Your task to perform on an android device: Install the Lyft app Image 0: 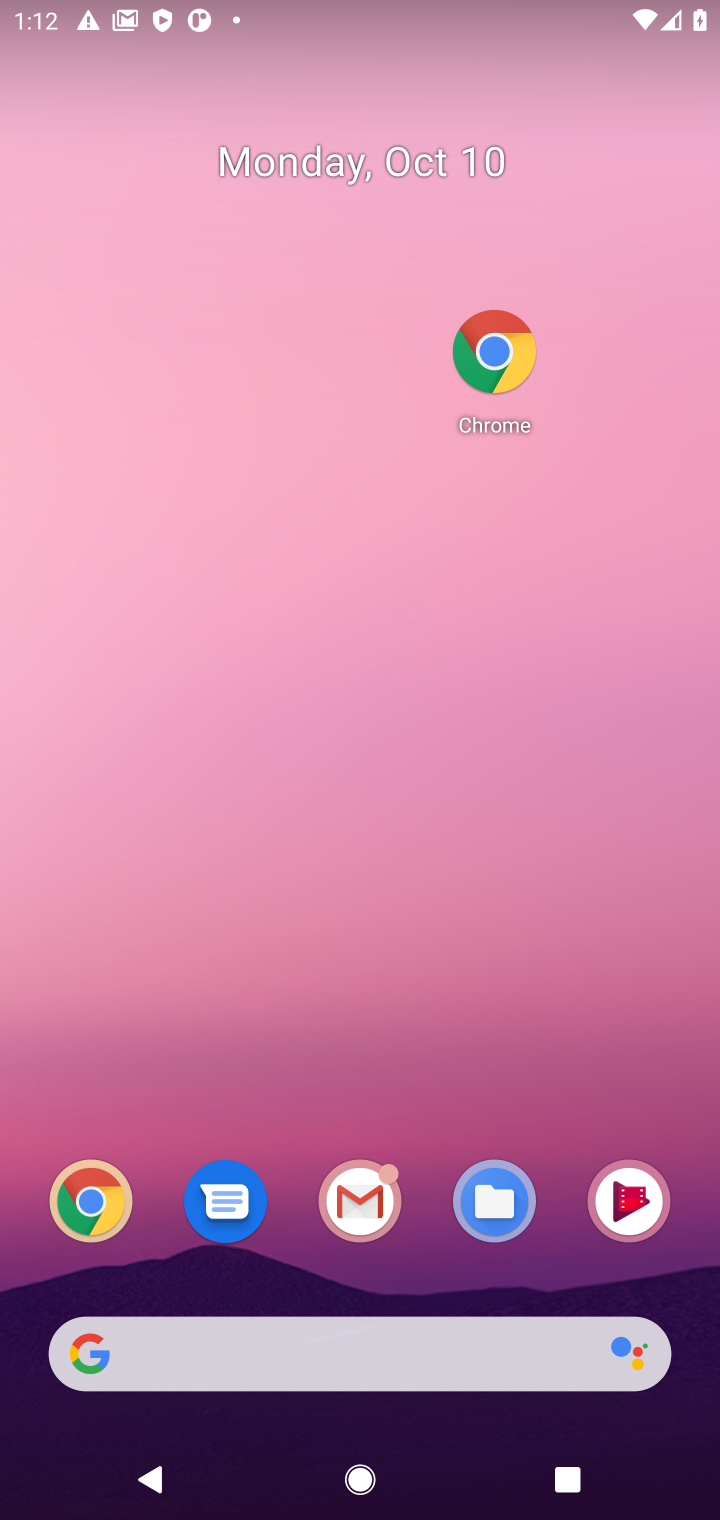
Step 0: drag from (424, 1022) to (433, 185)
Your task to perform on an android device: Install the Lyft app Image 1: 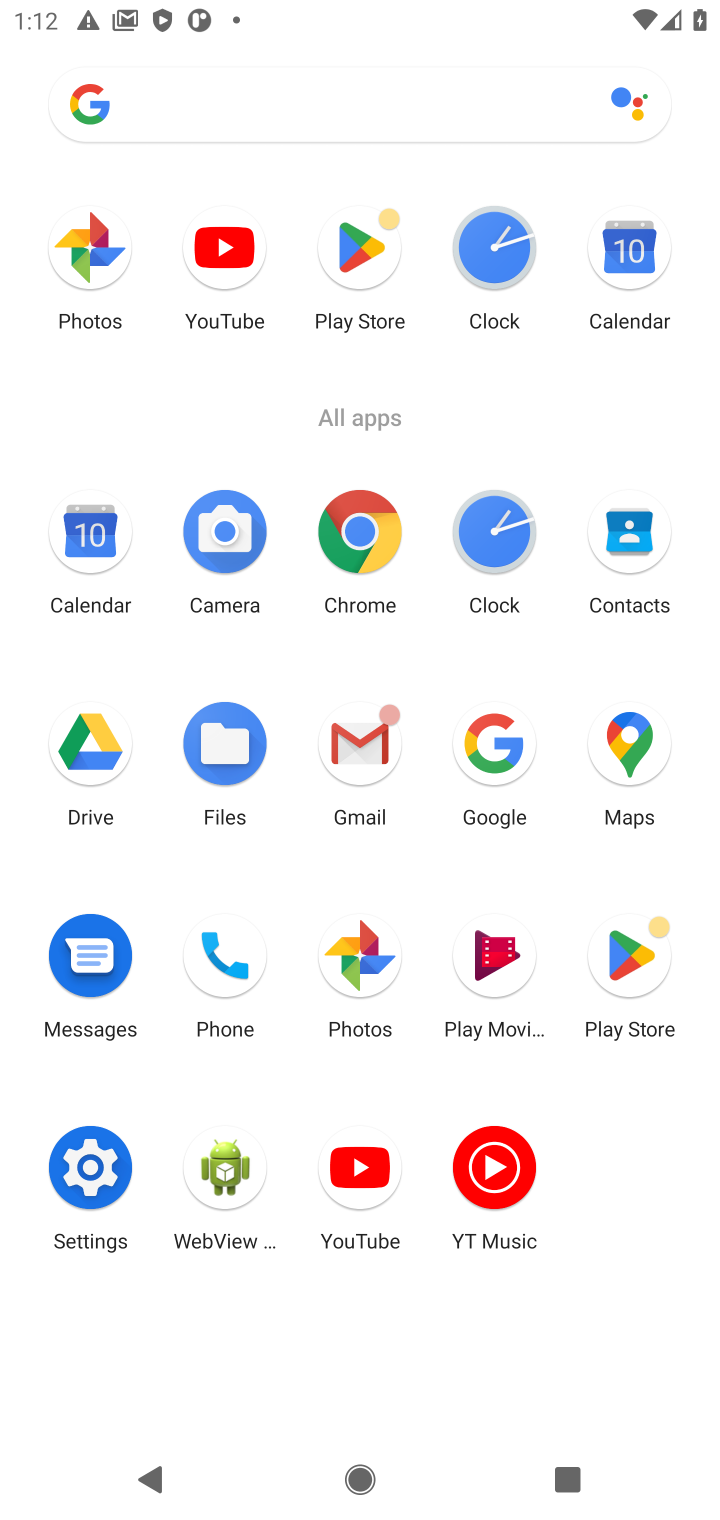
Step 1: click (360, 257)
Your task to perform on an android device: Install the Lyft app Image 2: 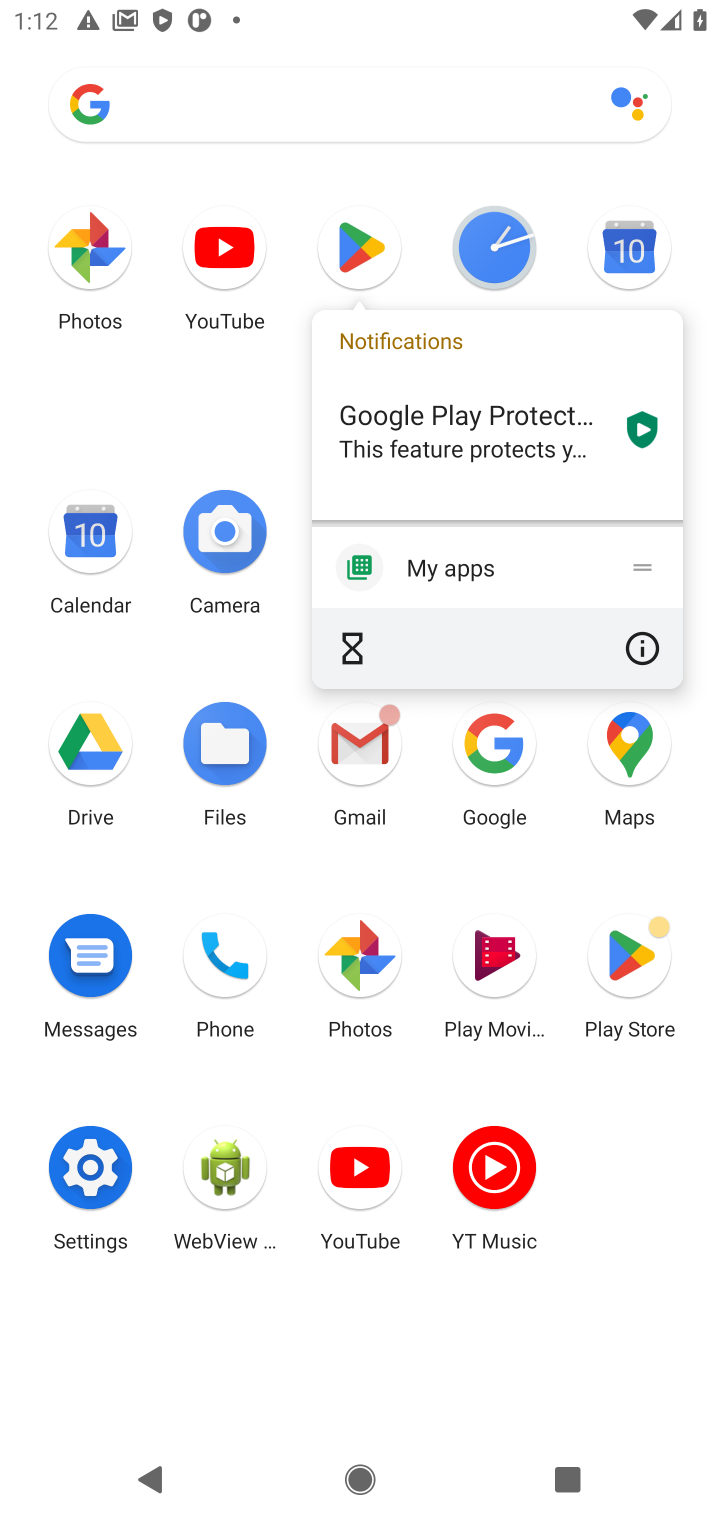
Step 2: click (360, 257)
Your task to perform on an android device: Install the Lyft app Image 3: 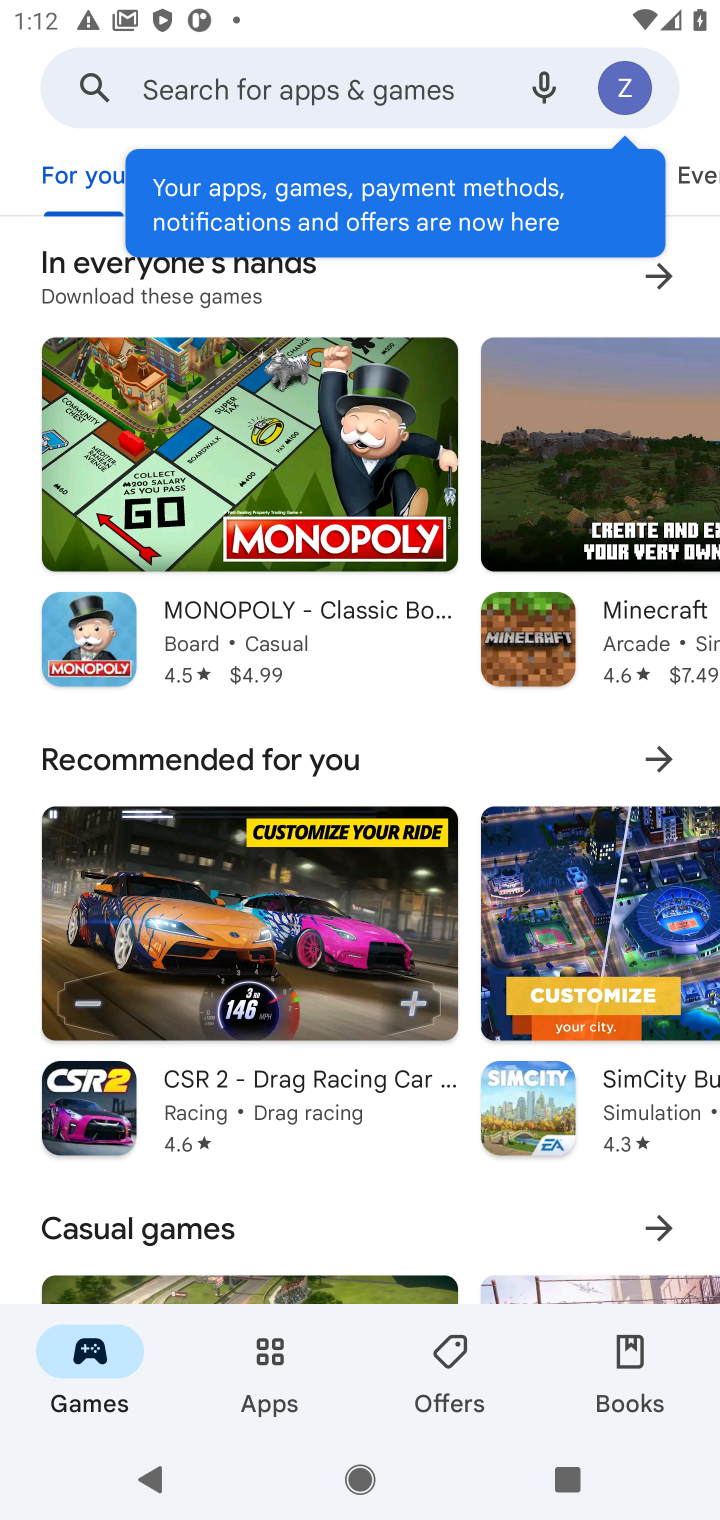
Step 3: click (188, 88)
Your task to perform on an android device: Install the Lyft app Image 4: 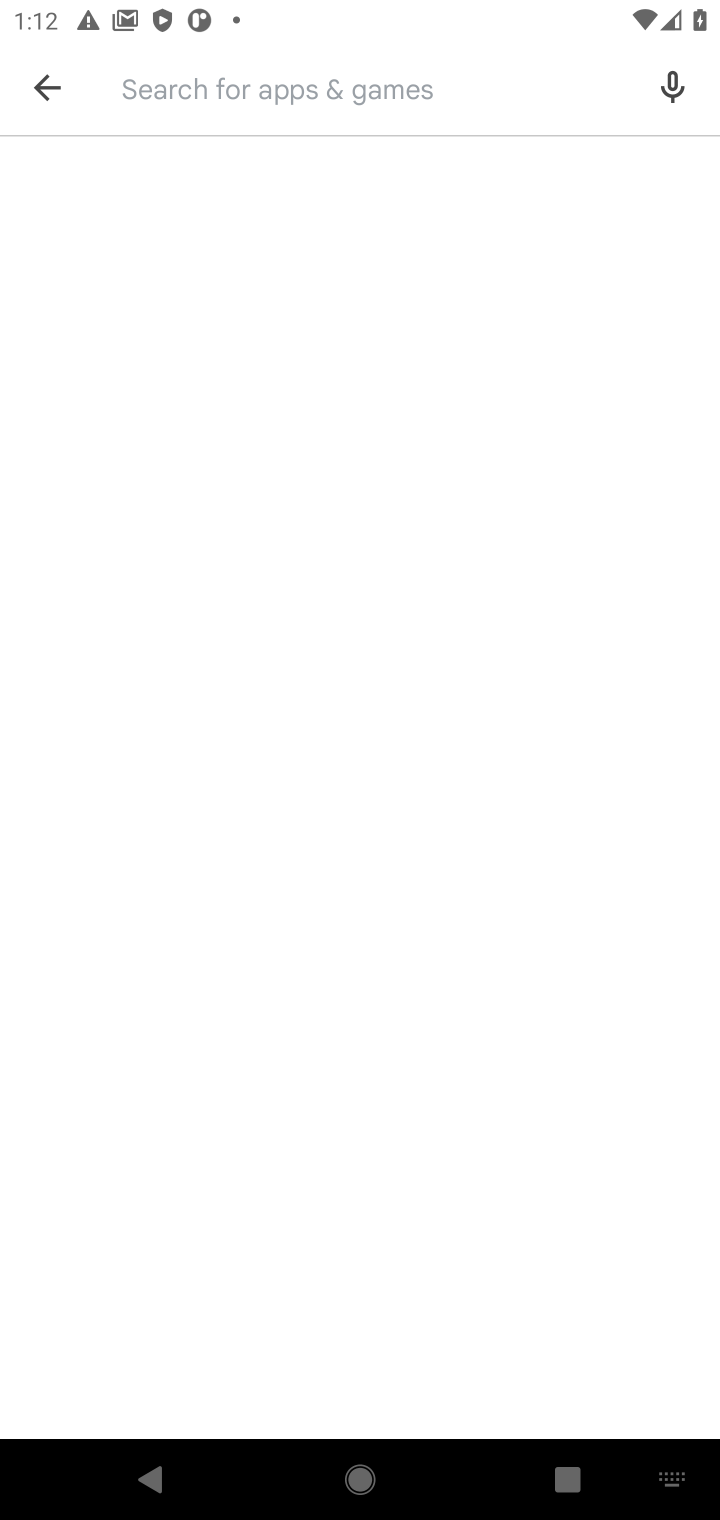
Step 4: type "lyft app"
Your task to perform on an android device: Install the Lyft app Image 5: 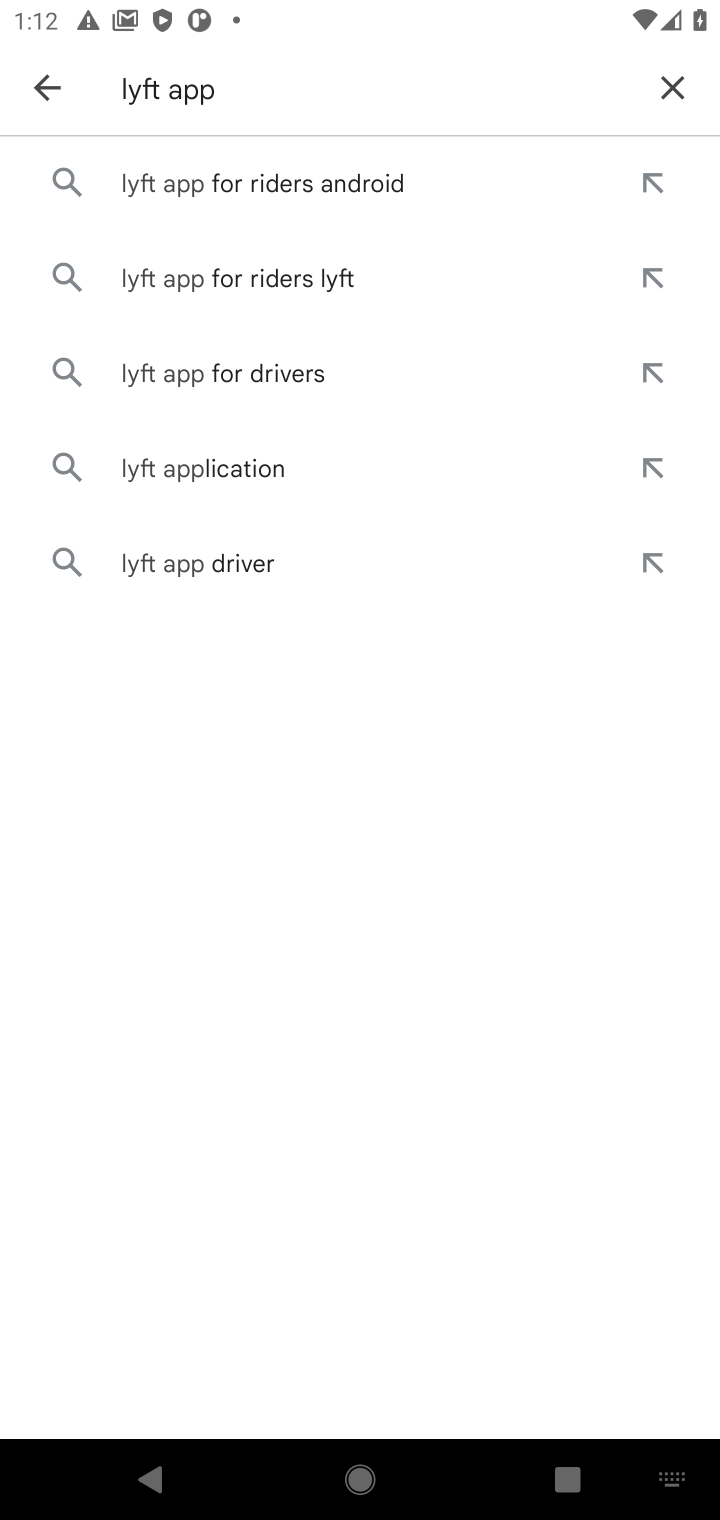
Step 5: click (166, 478)
Your task to perform on an android device: Install the Lyft app Image 6: 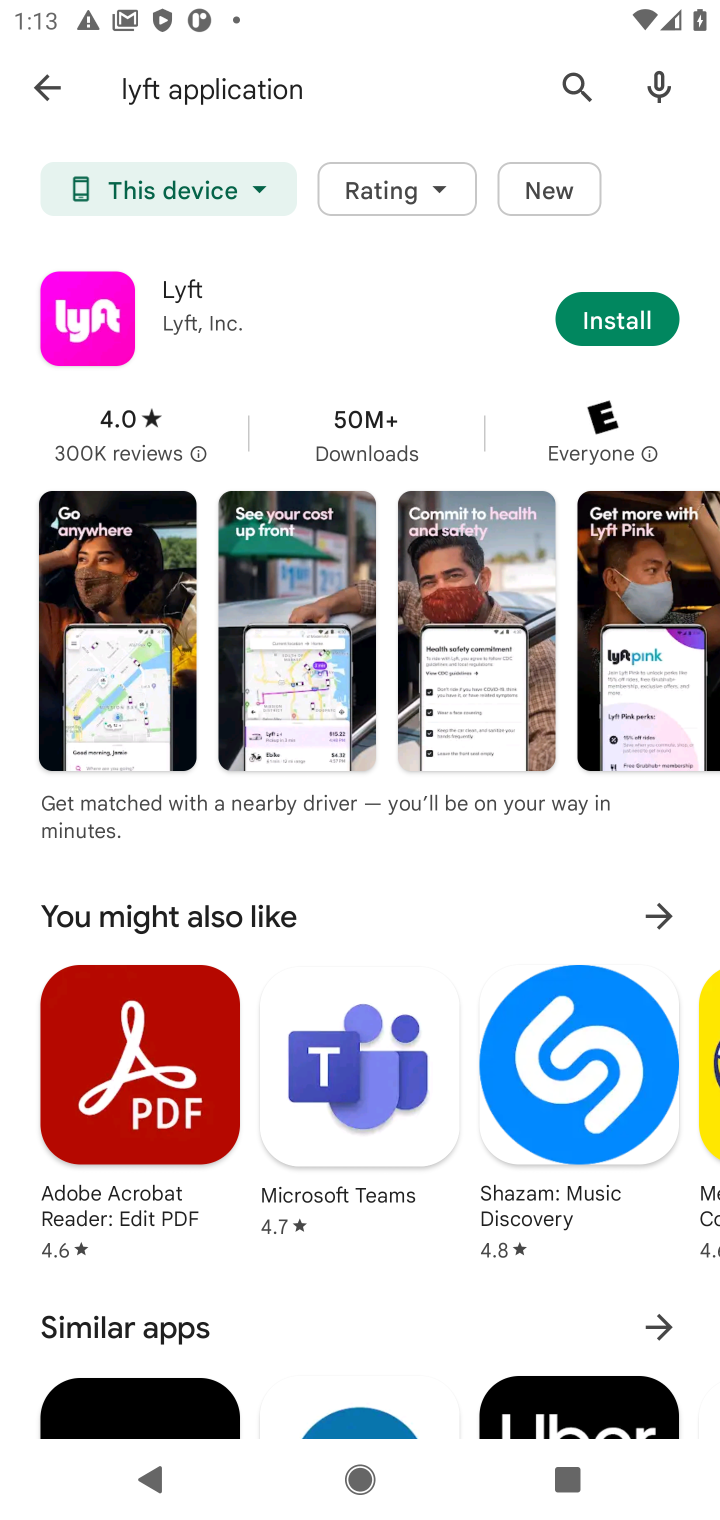
Step 6: click (619, 317)
Your task to perform on an android device: Install the Lyft app Image 7: 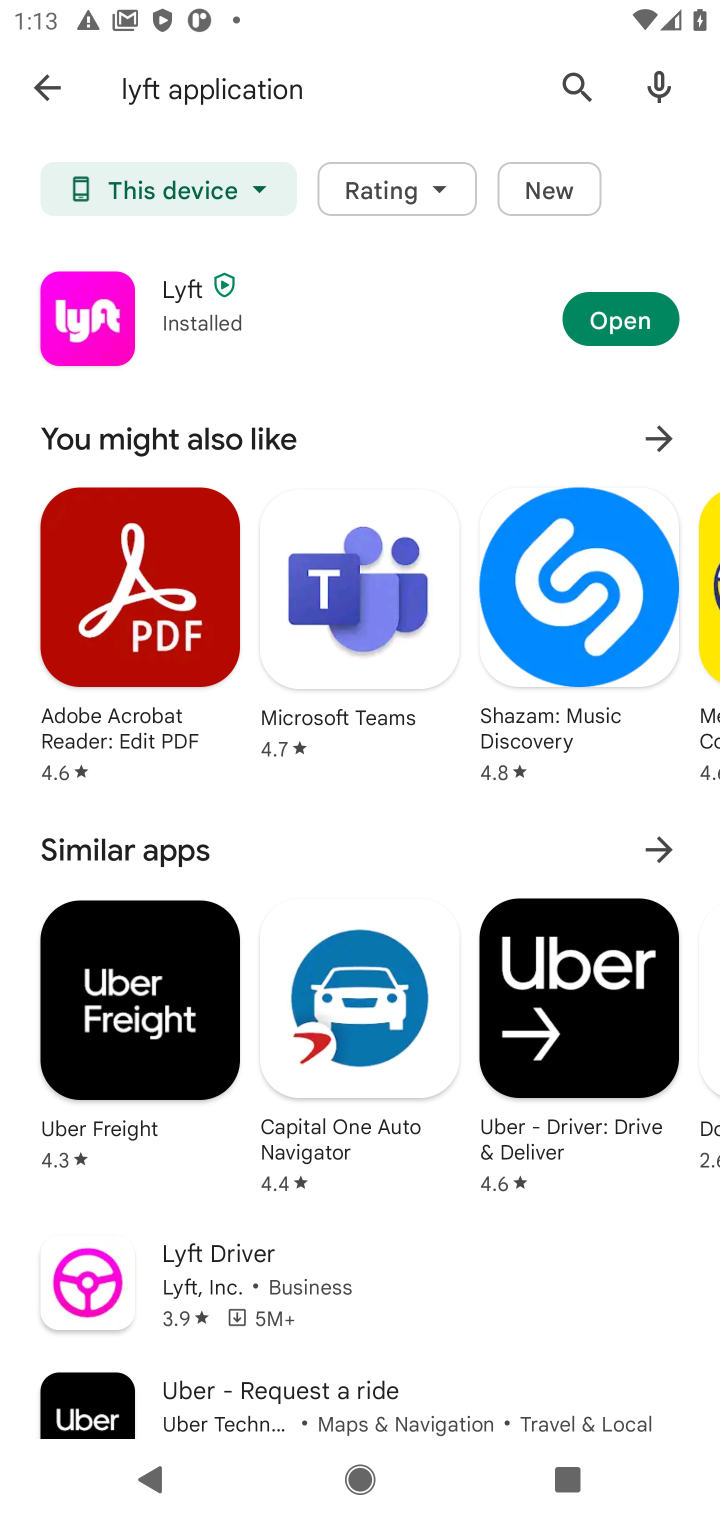
Step 7: task complete